Your task to perform on an android device: Go to sound settings Image 0: 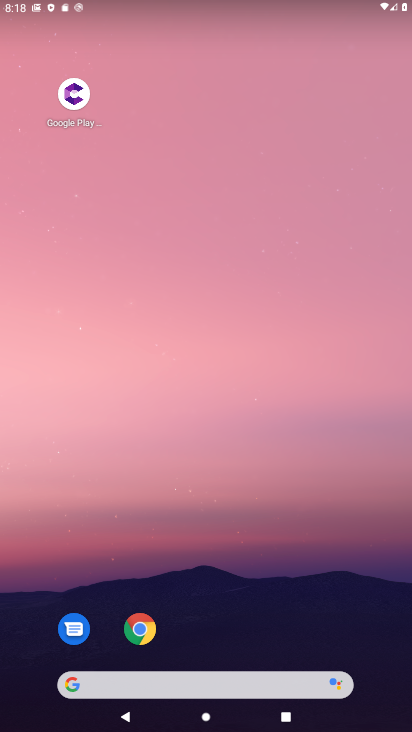
Step 0: drag from (242, 633) to (280, 22)
Your task to perform on an android device: Go to sound settings Image 1: 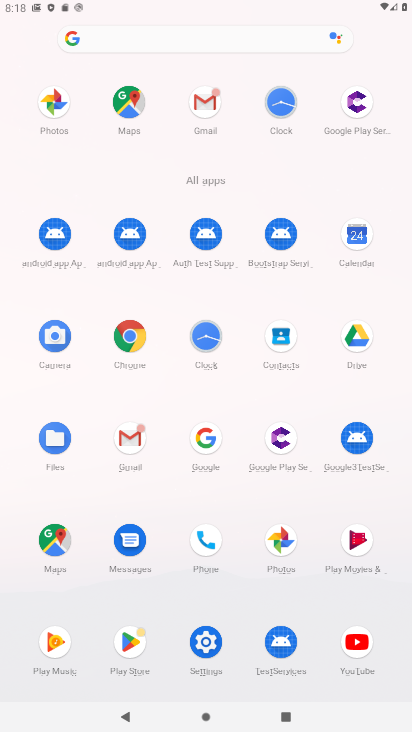
Step 1: click (222, 658)
Your task to perform on an android device: Go to sound settings Image 2: 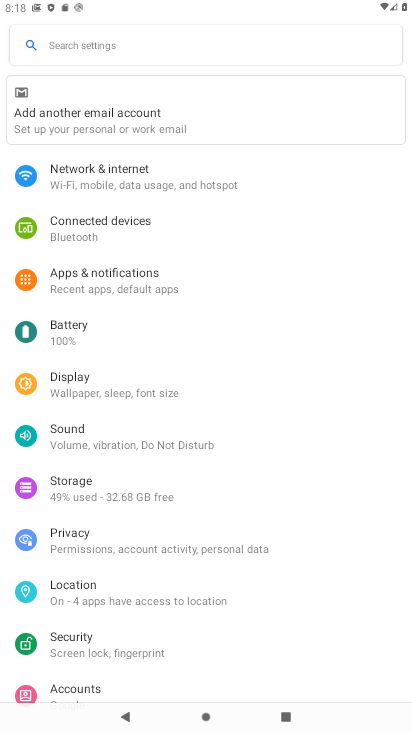
Step 2: click (92, 445)
Your task to perform on an android device: Go to sound settings Image 3: 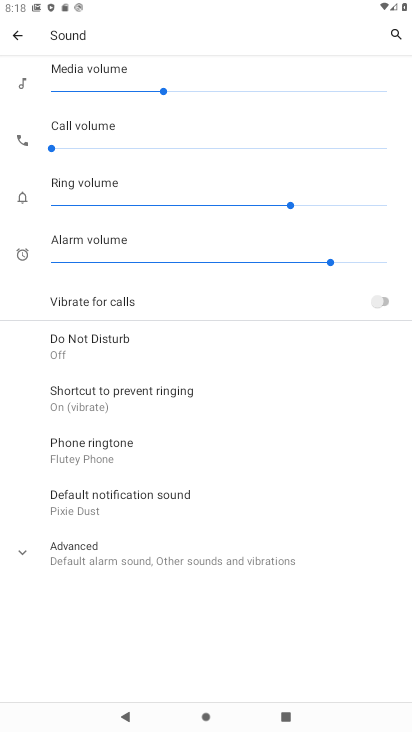
Step 3: task complete